Your task to perform on an android device: Open Android settings Image 0: 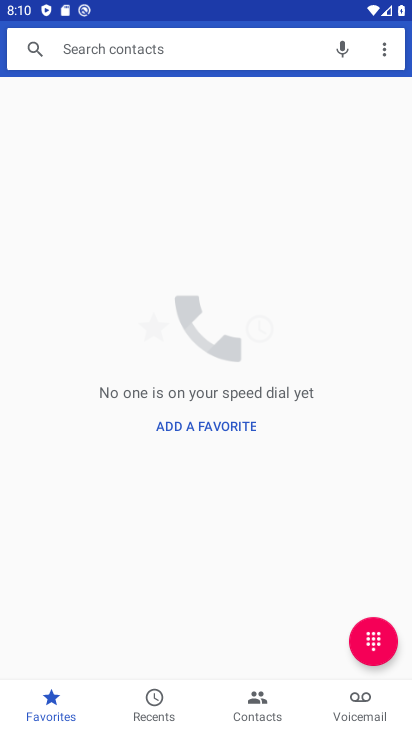
Step 0: press back button
Your task to perform on an android device: Open Android settings Image 1: 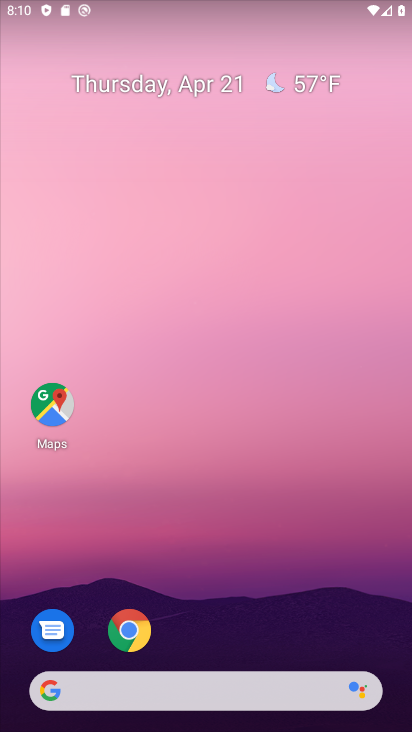
Step 1: drag from (328, 617) to (263, 307)
Your task to perform on an android device: Open Android settings Image 2: 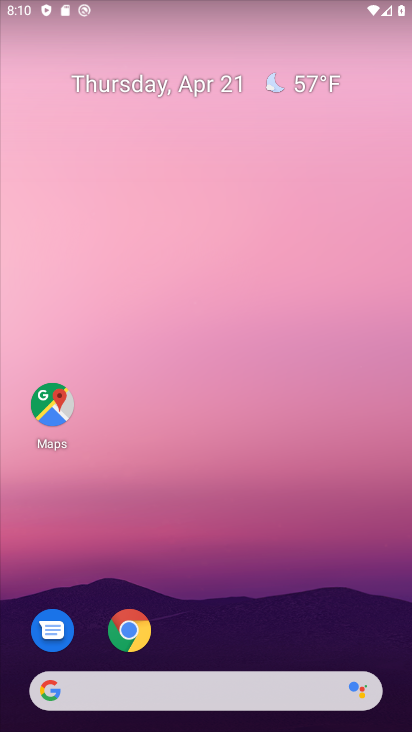
Step 2: drag from (310, 610) to (276, 277)
Your task to perform on an android device: Open Android settings Image 3: 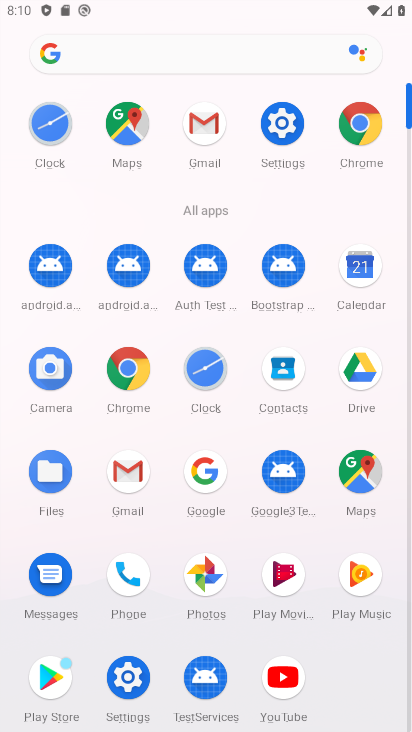
Step 3: click (142, 675)
Your task to perform on an android device: Open Android settings Image 4: 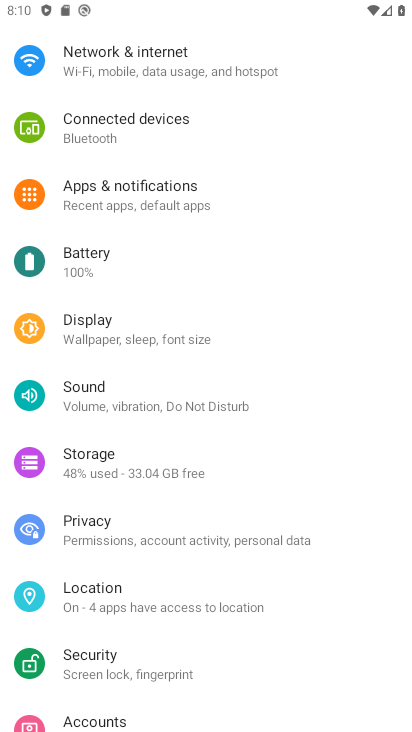
Step 4: drag from (174, 650) to (187, 269)
Your task to perform on an android device: Open Android settings Image 5: 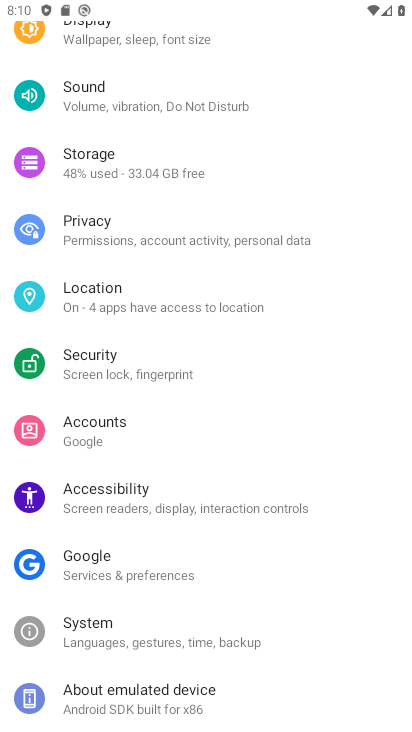
Step 5: click (165, 692)
Your task to perform on an android device: Open Android settings Image 6: 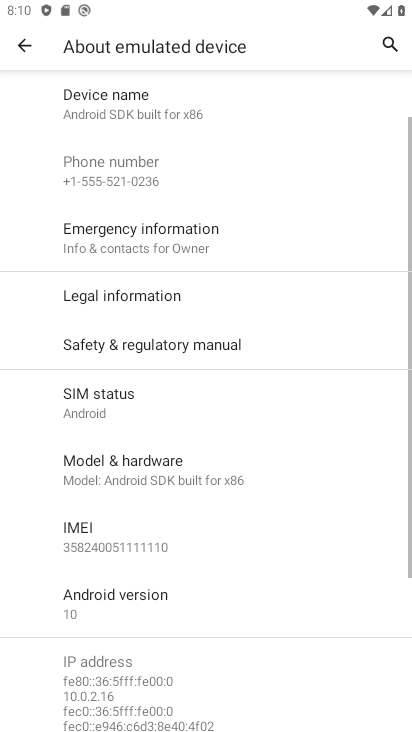
Step 6: click (173, 600)
Your task to perform on an android device: Open Android settings Image 7: 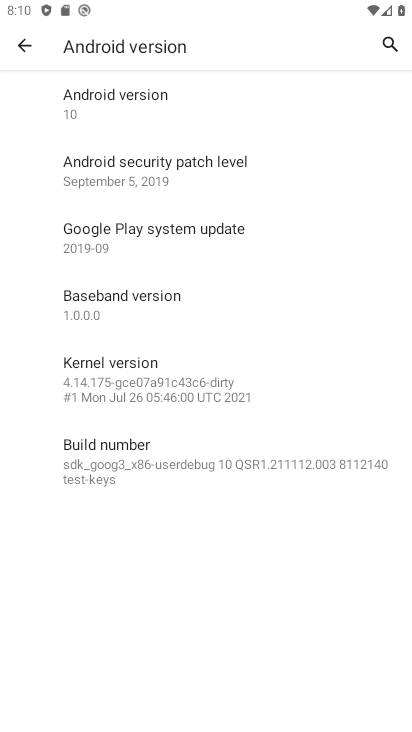
Step 7: task complete